Your task to perform on an android device: install app "Facebook Messenger" Image 0: 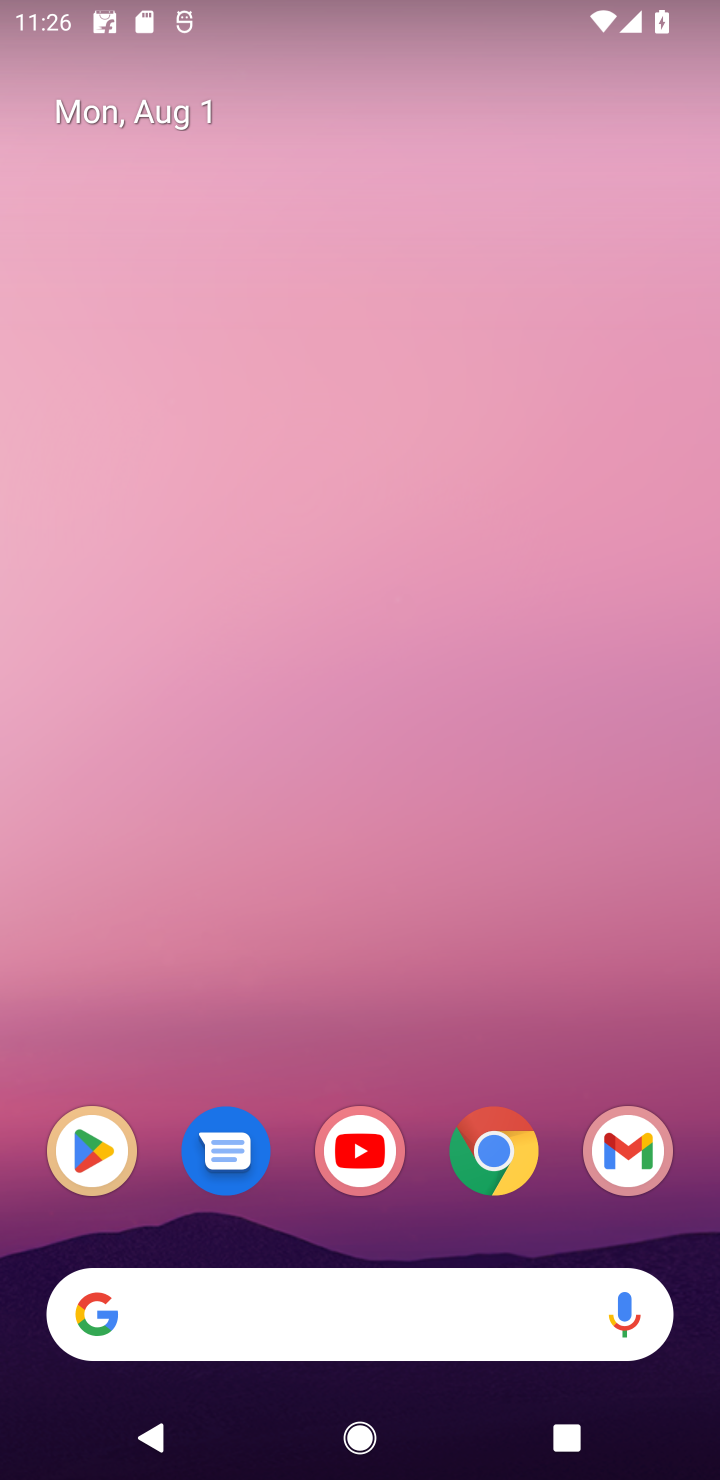
Step 0: click (109, 1162)
Your task to perform on an android device: install app "Facebook Messenger" Image 1: 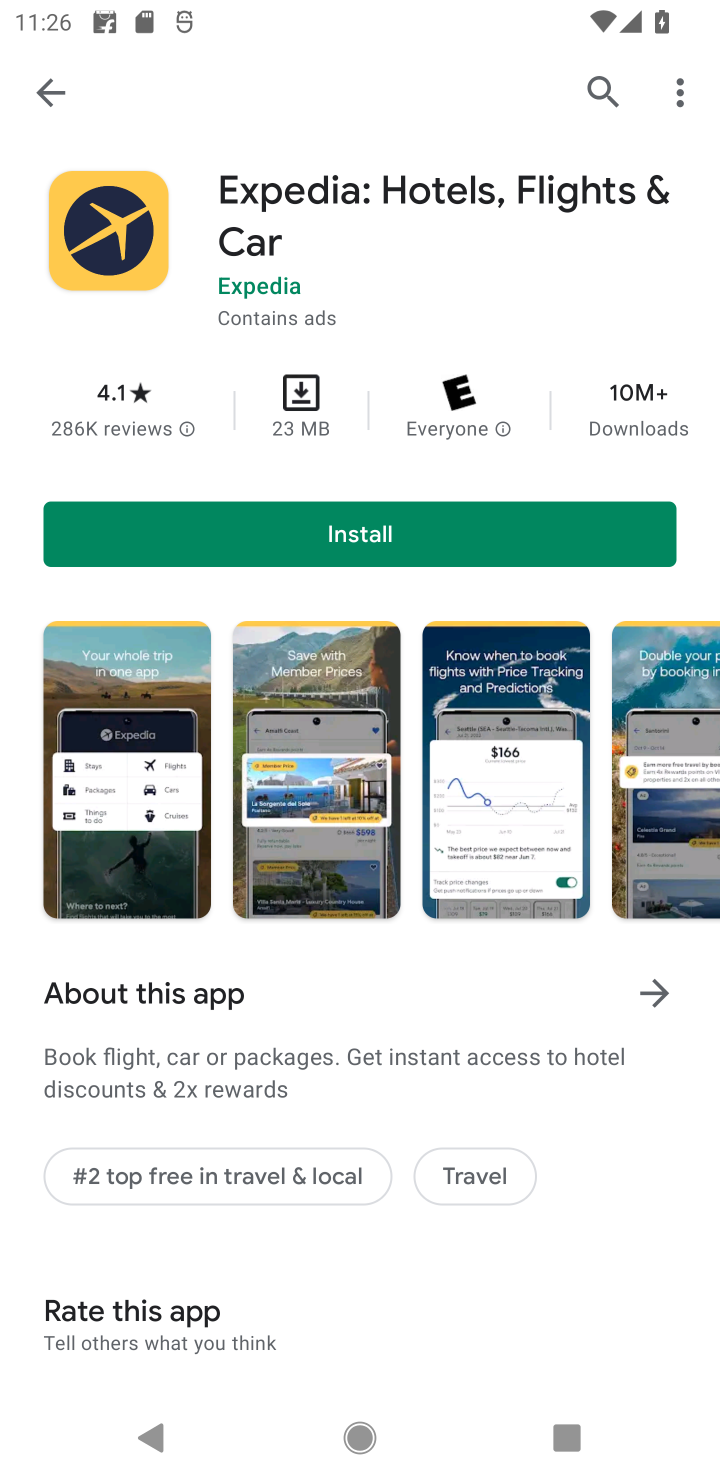
Step 1: click (605, 86)
Your task to perform on an android device: install app "Facebook Messenger" Image 2: 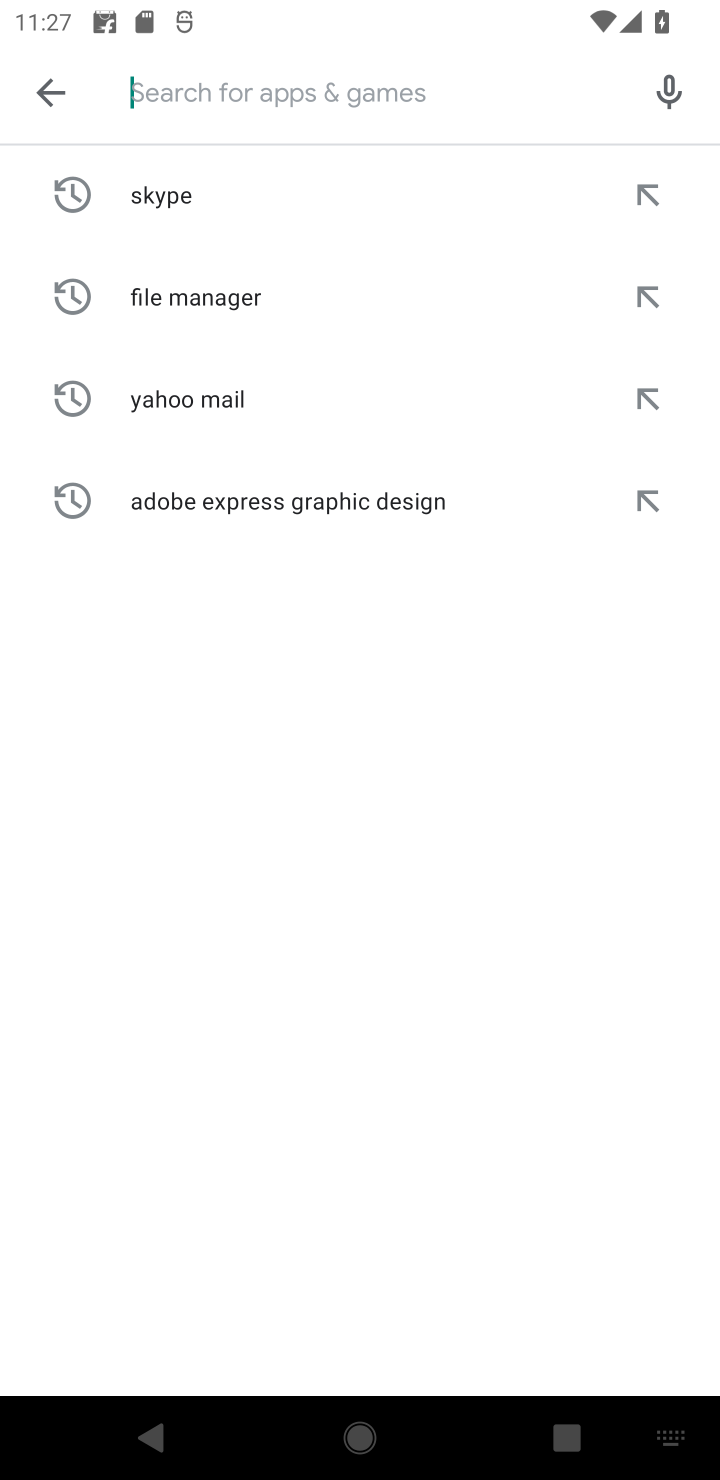
Step 2: type "Facebook Messenger"
Your task to perform on an android device: install app "Facebook Messenger" Image 3: 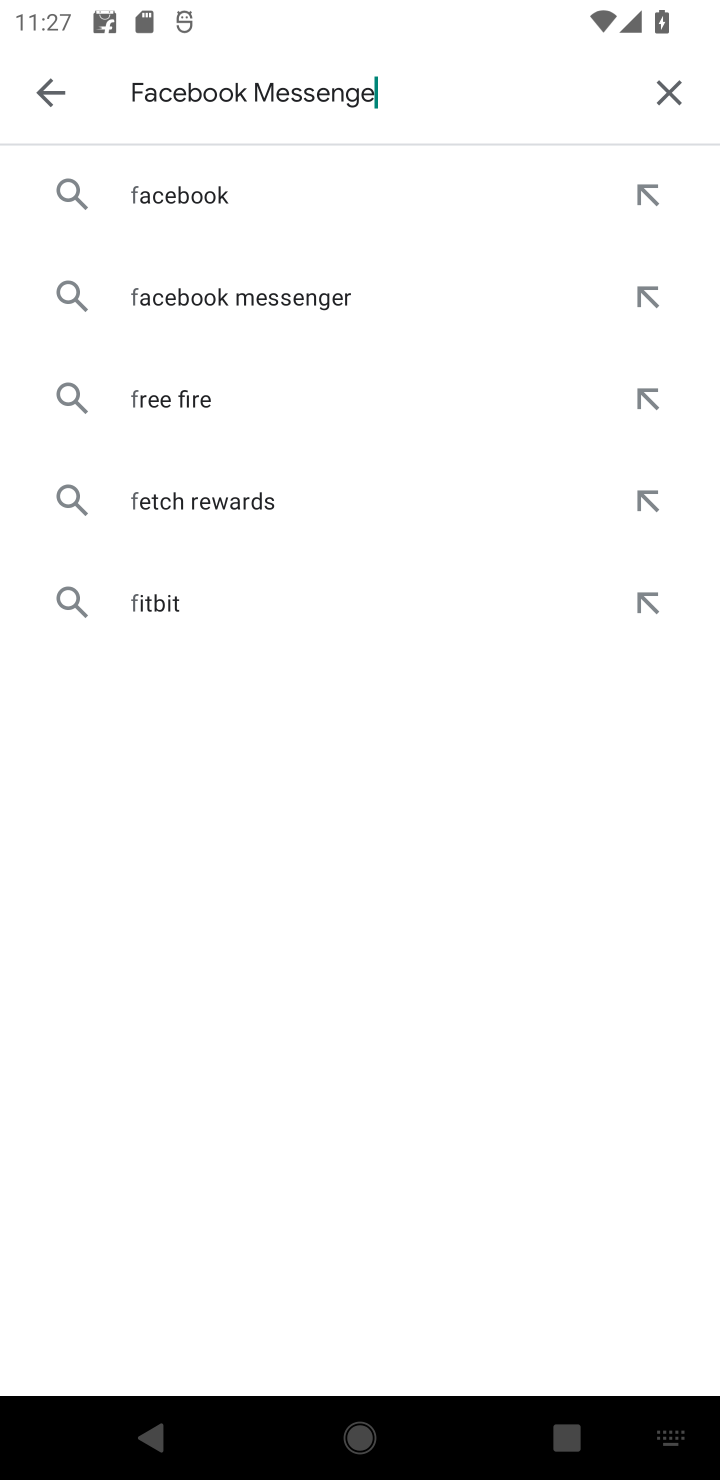
Step 3: type ""
Your task to perform on an android device: install app "Facebook Messenger" Image 4: 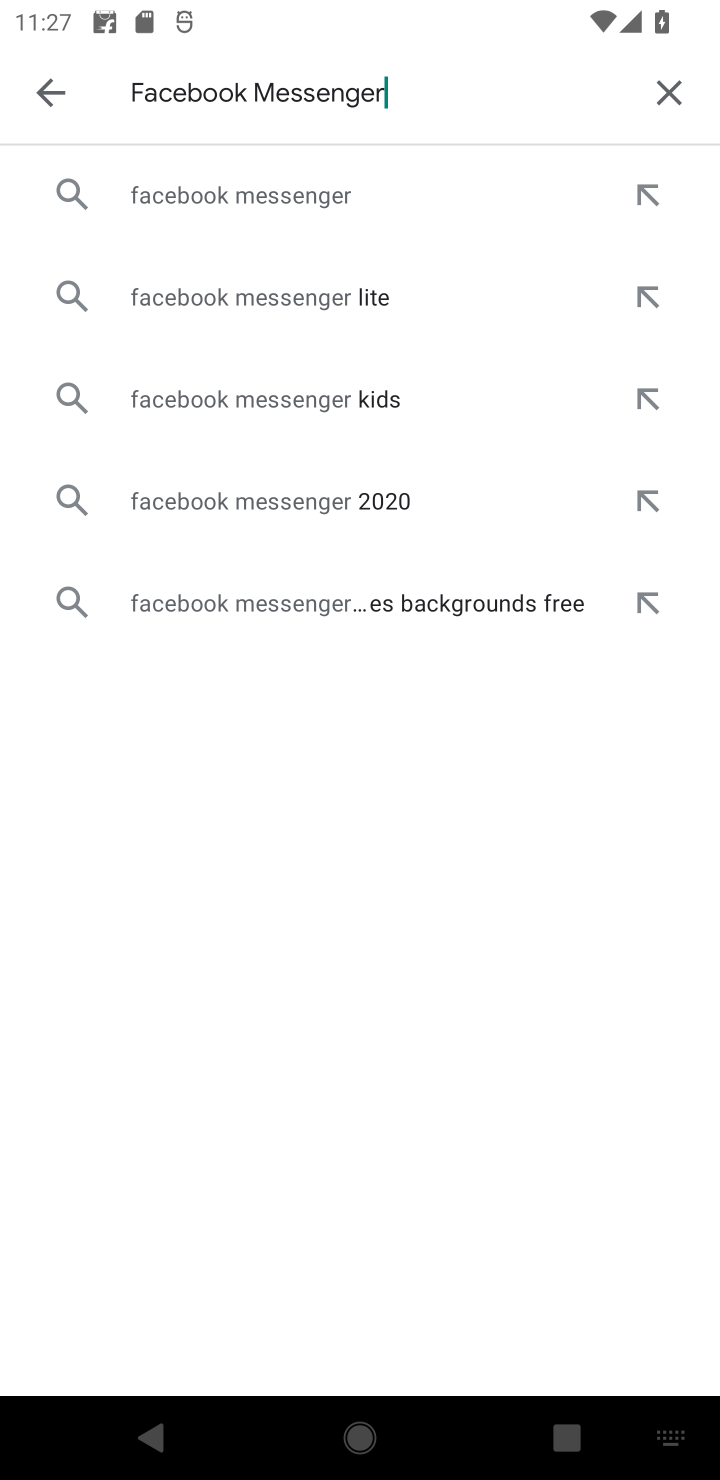
Step 4: click (312, 201)
Your task to perform on an android device: install app "Facebook Messenger" Image 5: 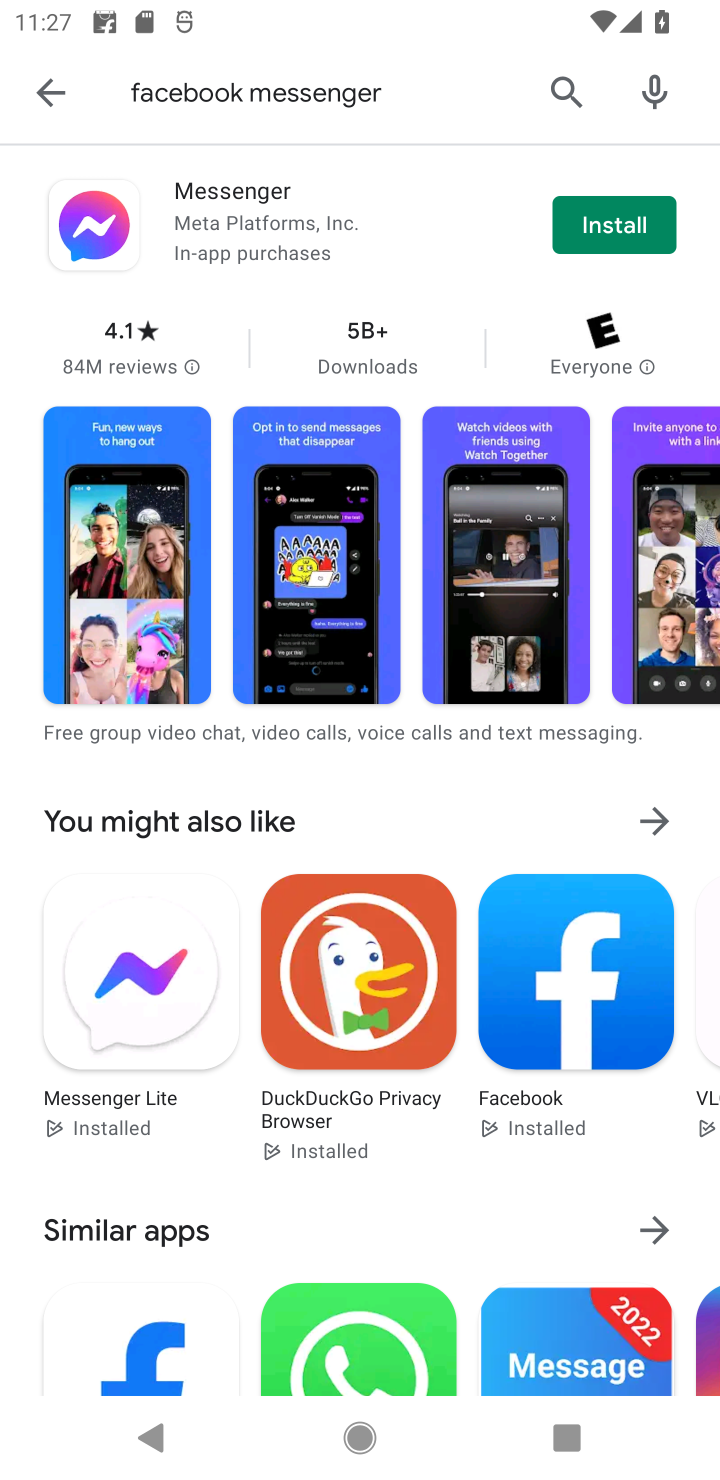
Step 5: click (619, 223)
Your task to perform on an android device: install app "Facebook Messenger" Image 6: 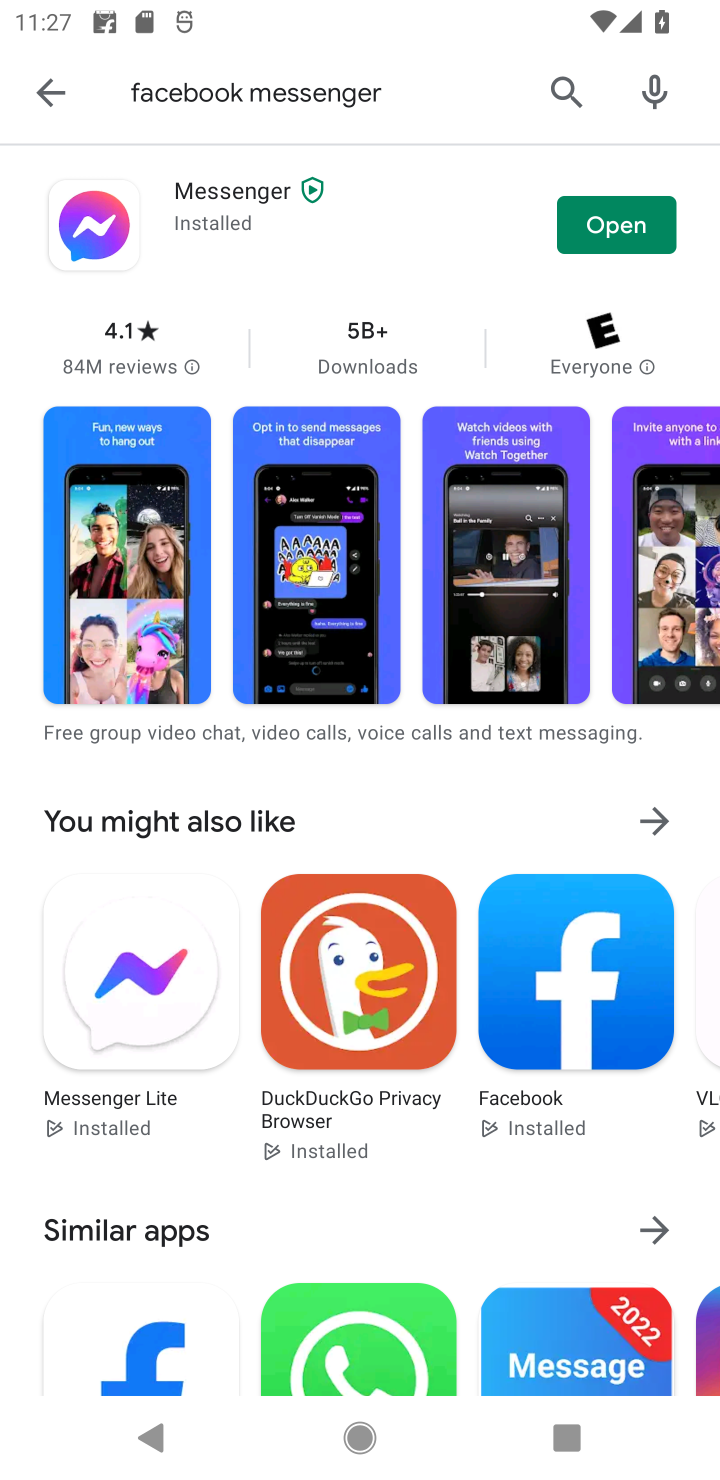
Step 6: task complete